Your task to perform on an android device: Open Amazon Image 0: 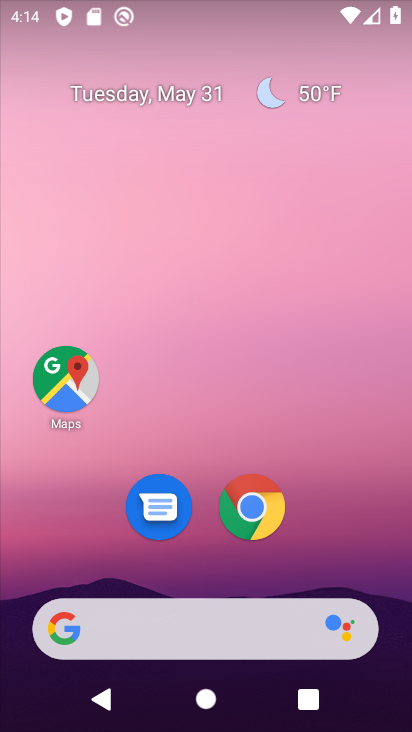
Step 0: drag from (225, 449) to (261, 19)
Your task to perform on an android device: Open Amazon Image 1: 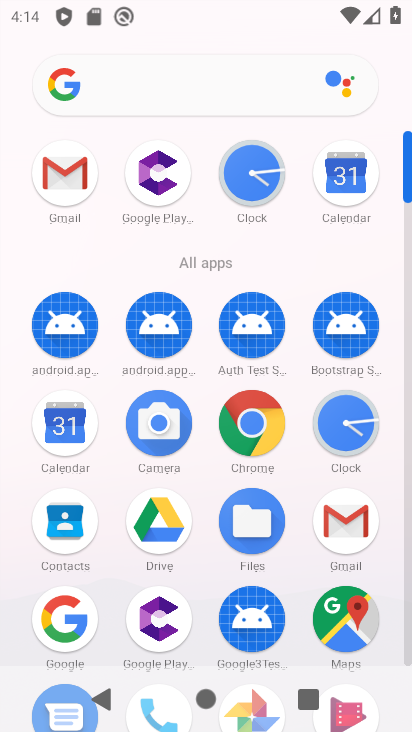
Step 1: click (246, 427)
Your task to perform on an android device: Open Amazon Image 2: 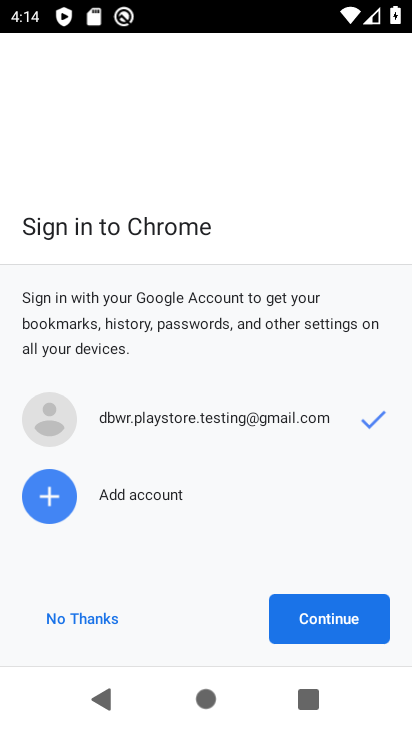
Step 2: click (360, 607)
Your task to perform on an android device: Open Amazon Image 3: 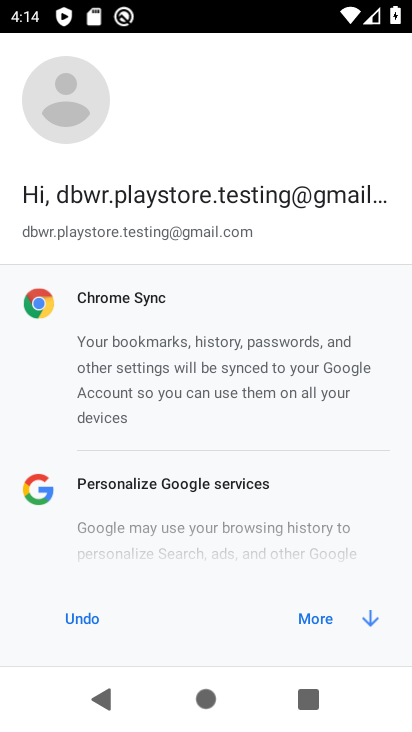
Step 3: click (340, 615)
Your task to perform on an android device: Open Amazon Image 4: 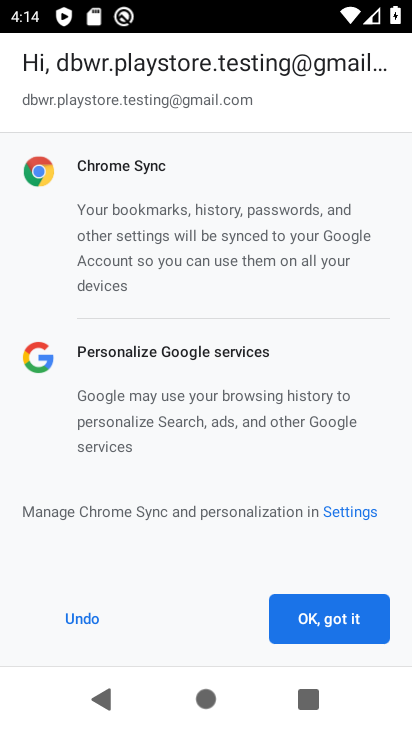
Step 4: click (342, 615)
Your task to perform on an android device: Open Amazon Image 5: 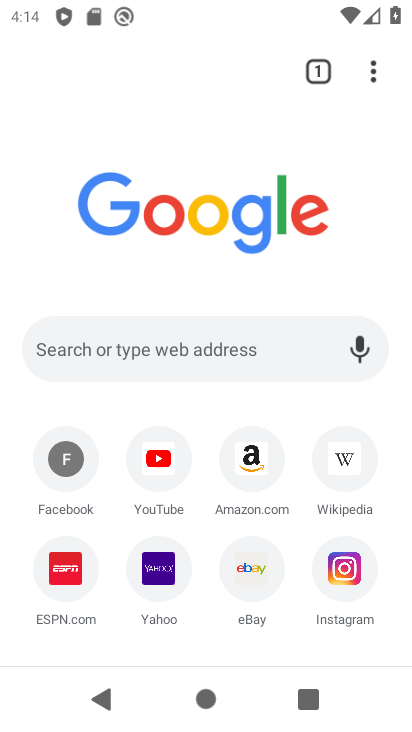
Step 5: click (258, 440)
Your task to perform on an android device: Open Amazon Image 6: 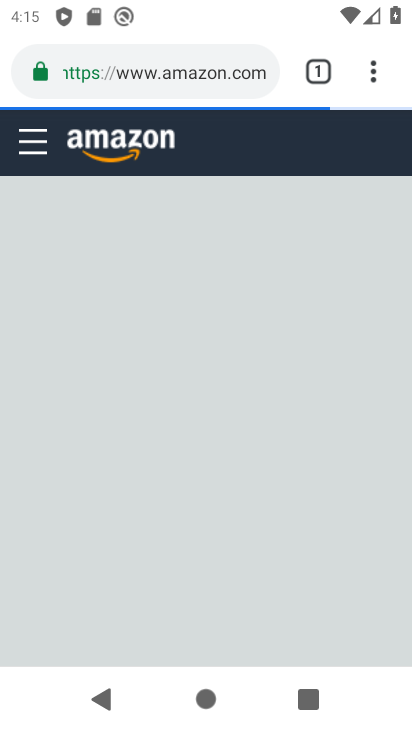
Step 6: task complete